Your task to perform on an android device: toggle pop-ups in chrome Image 0: 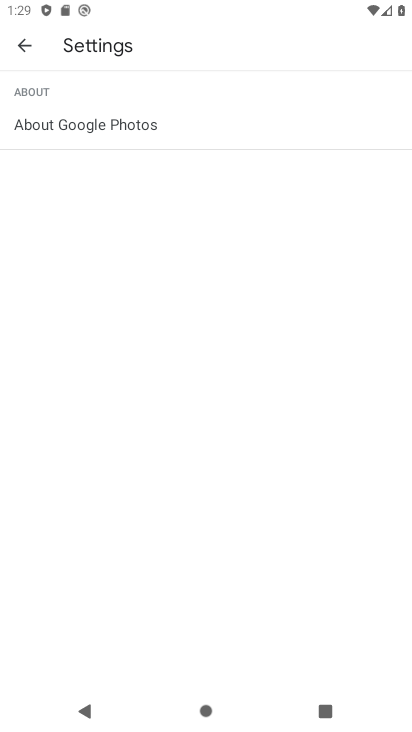
Step 0: press home button
Your task to perform on an android device: toggle pop-ups in chrome Image 1: 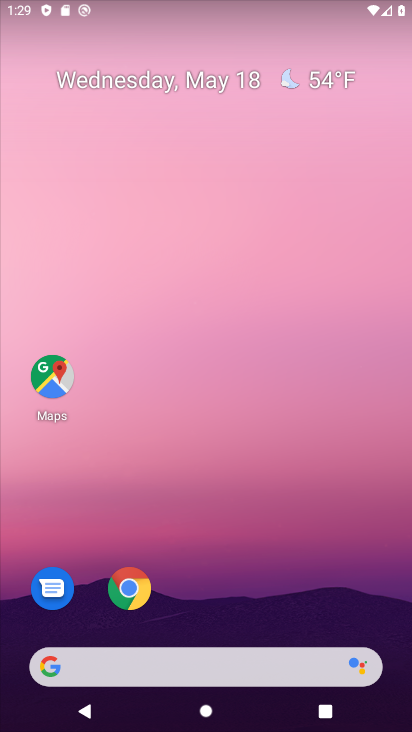
Step 1: click (135, 603)
Your task to perform on an android device: toggle pop-ups in chrome Image 2: 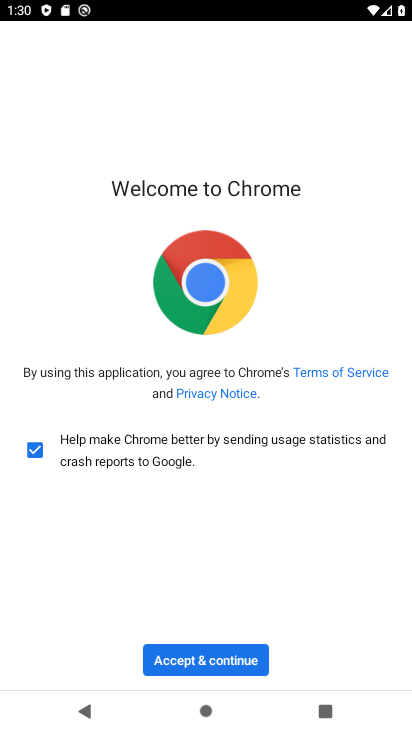
Step 2: click (219, 666)
Your task to perform on an android device: toggle pop-ups in chrome Image 3: 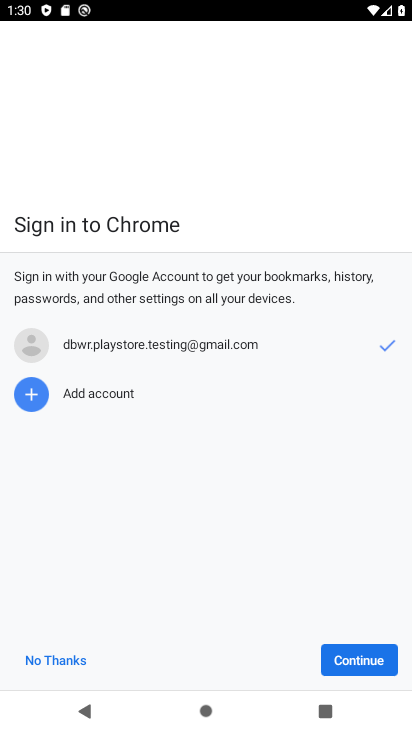
Step 3: click (372, 649)
Your task to perform on an android device: toggle pop-ups in chrome Image 4: 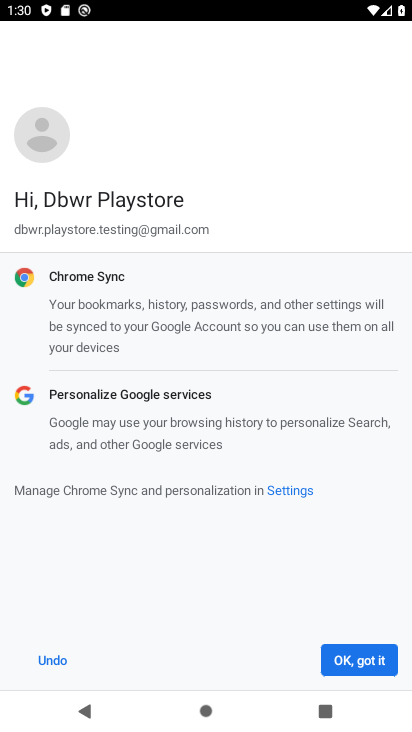
Step 4: click (364, 655)
Your task to perform on an android device: toggle pop-ups in chrome Image 5: 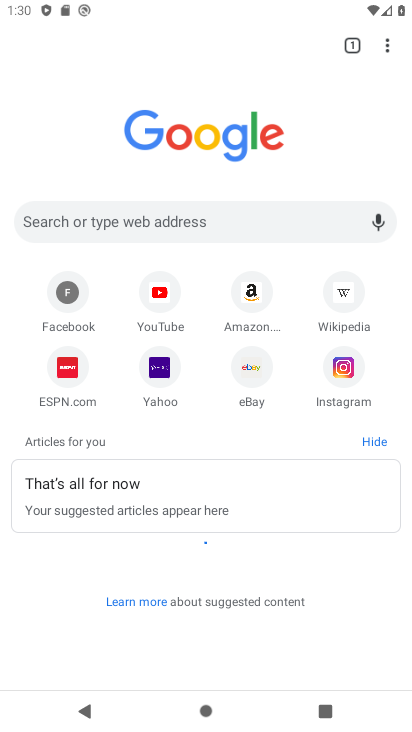
Step 5: drag from (386, 49) to (239, 386)
Your task to perform on an android device: toggle pop-ups in chrome Image 6: 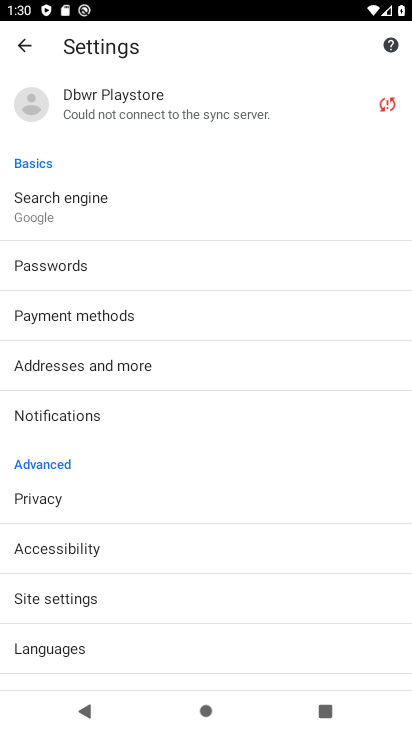
Step 6: click (106, 608)
Your task to perform on an android device: toggle pop-ups in chrome Image 7: 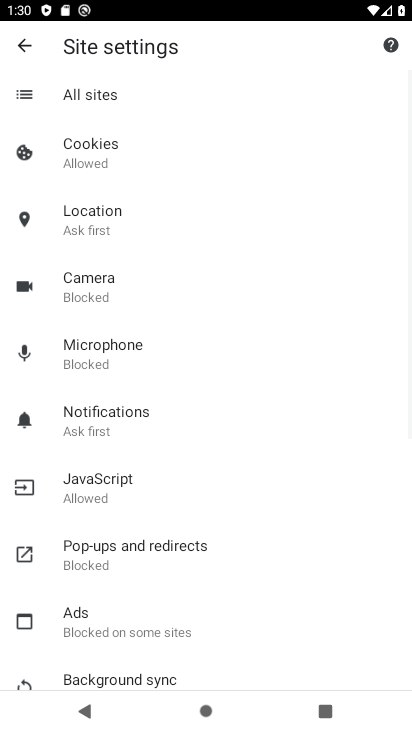
Step 7: click (119, 562)
Your task to perform on an android device: toggle pop-ups in chrome Image 8: 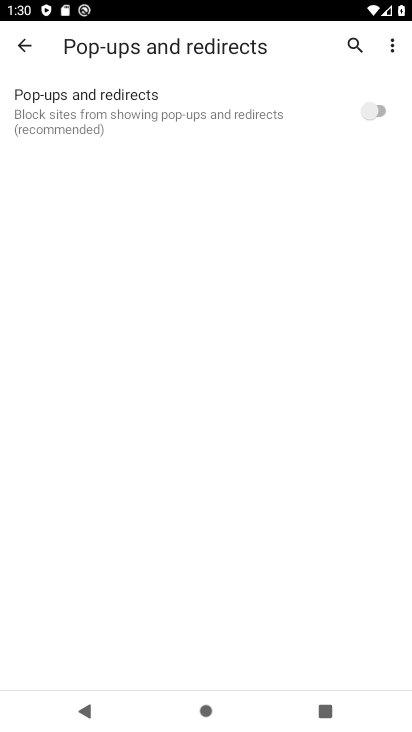
Step 8: click (384, 105)
Your task to perform on an android device: toggle pop-ups in chrome Image 9: 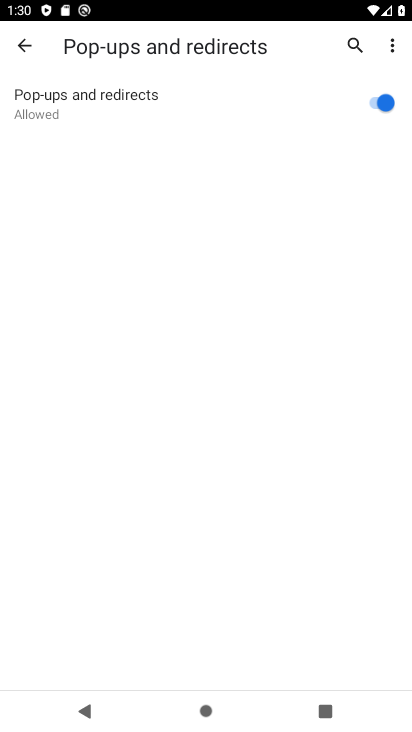
Step 9: task complete